Your task to perform on an android device: turn on location history Image 0: 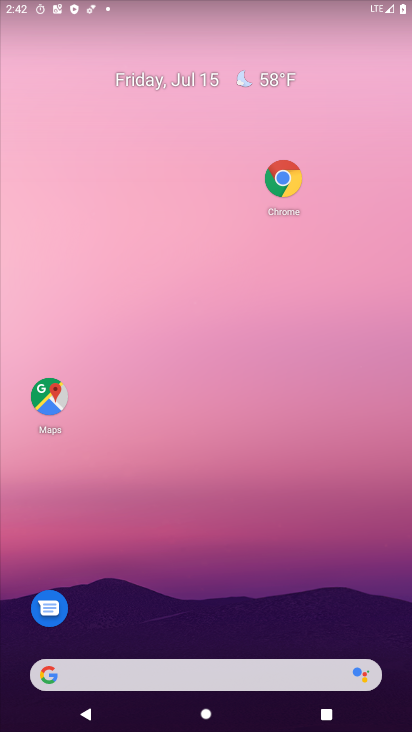
Step 0: drag from (192, 606) to (169, 151)
Your task to perform on an android device: turn on location history Image 1: 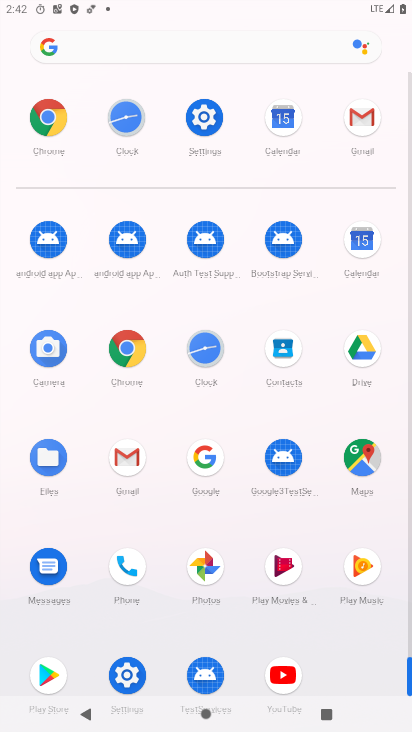
Step 1: click (363, 450)
Your task to perform on an android device: turn on location history Image 2: 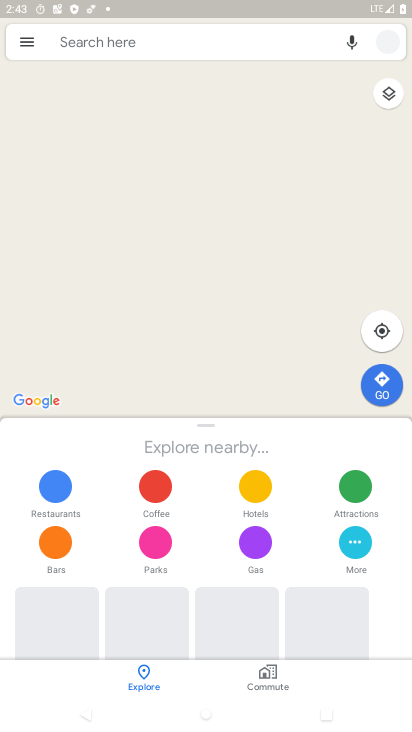
Step 2: click (126, 46)
Your task to perform on an android device: turn on location history Image 3: 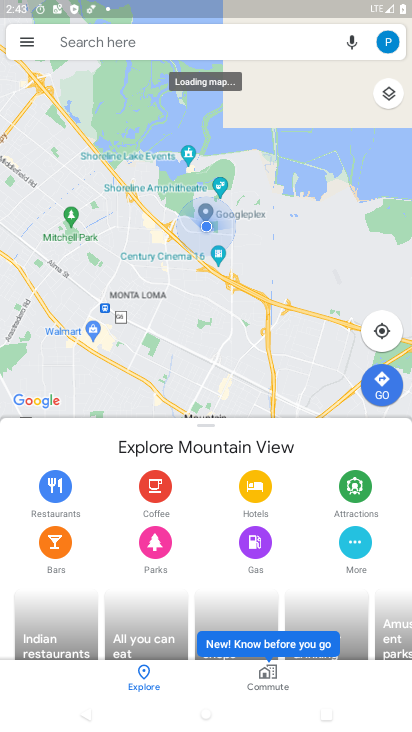
Step 3: click (30, 38)
Your task to perform on an android device: turn on location history Image 4: 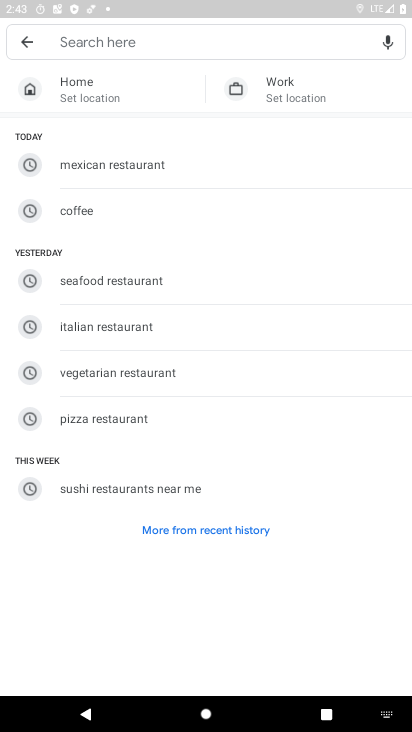
Step 4: click (30, 38)
Your task to perform on an android device: turn on location history Image 5: 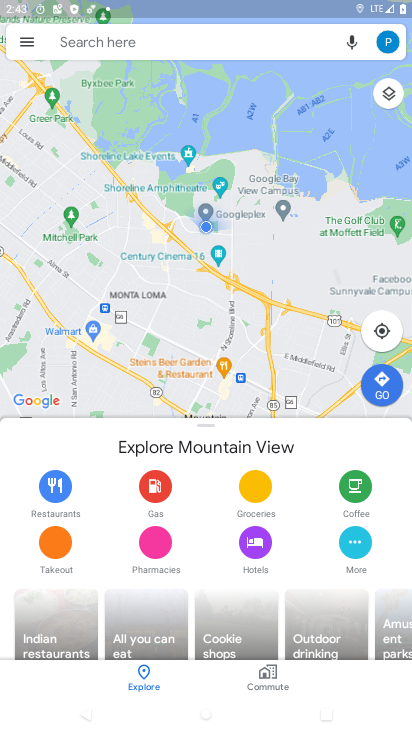
Step 5: click (30, 38)
Your task to perform on an android device: turn on location history Image 6: 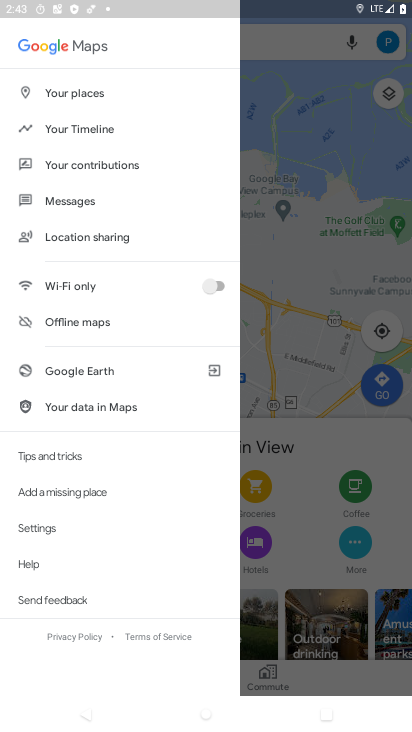
Step 6: click (78, 125)
Your task to perform on an android device: turn on location history Image 7: 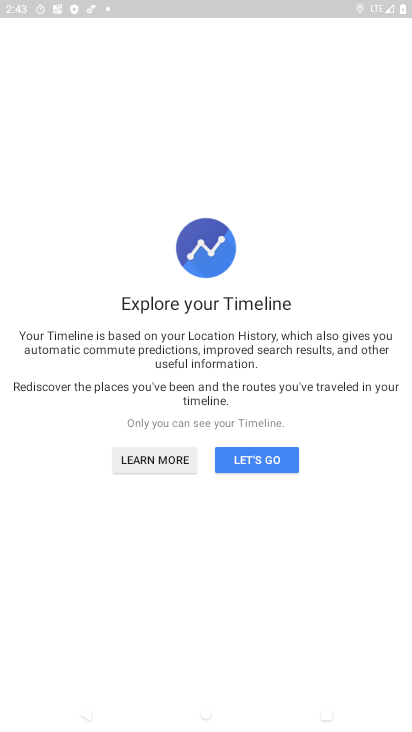
Step 7: click (251, 457)
Your task to perform on an android device: turn on location history Image 8: 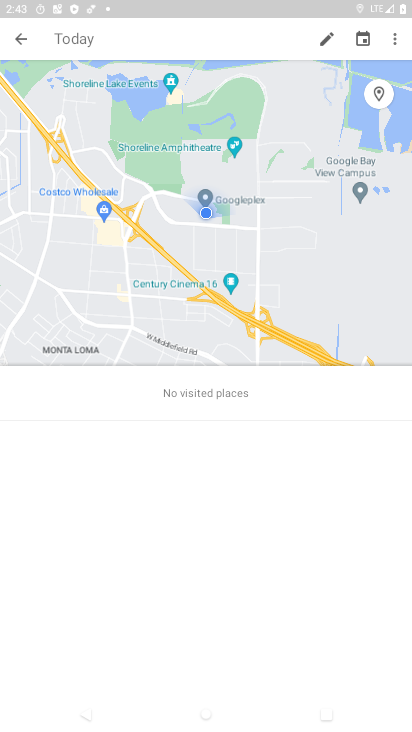
Step 8: click (399, 35)
Your task to perform on an android device: turn on location history Image 9: 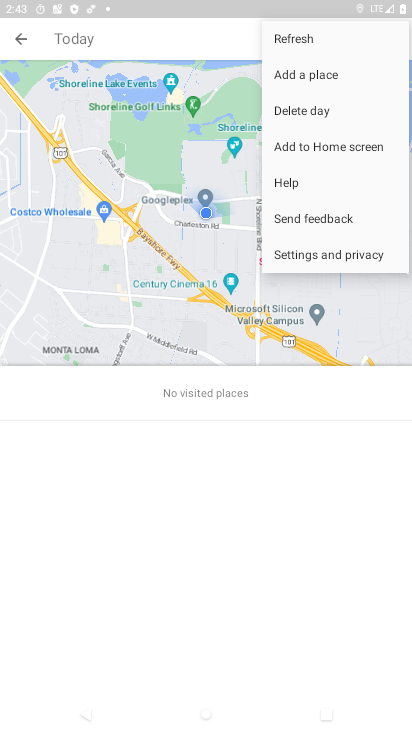
Step 9: click (333, 249)
Your task to perform on an android device: turn on location history Image 10: 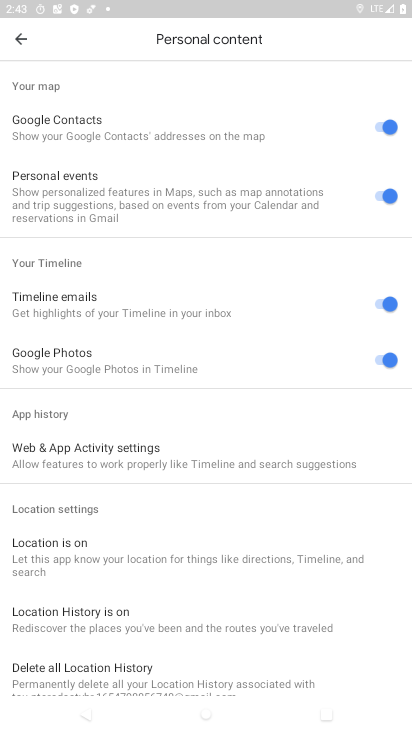
Step 10: drag from (99, 639) to (147, 338)
Your task to perform on an android device: turn on location history Image 11: 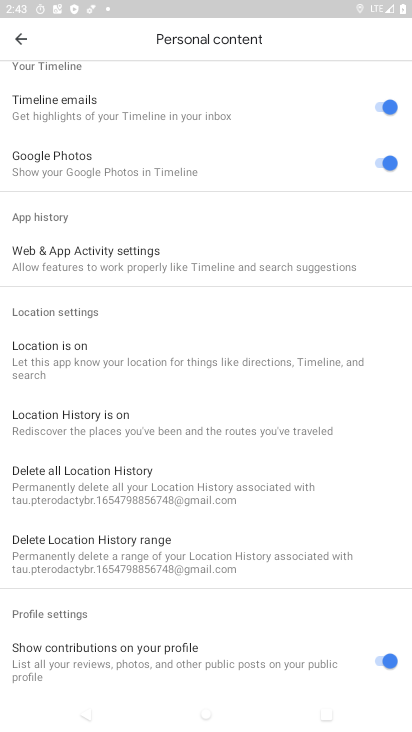
Step 11: click (57, 420)
Your task to perform on an android device: turn on location history Image 12: 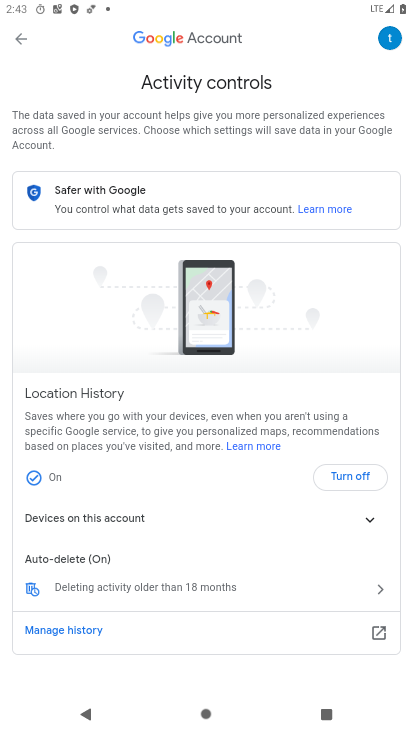
Step 12: task complete